Your task to perform on an android device: turn off improve location accuracy Image 0: 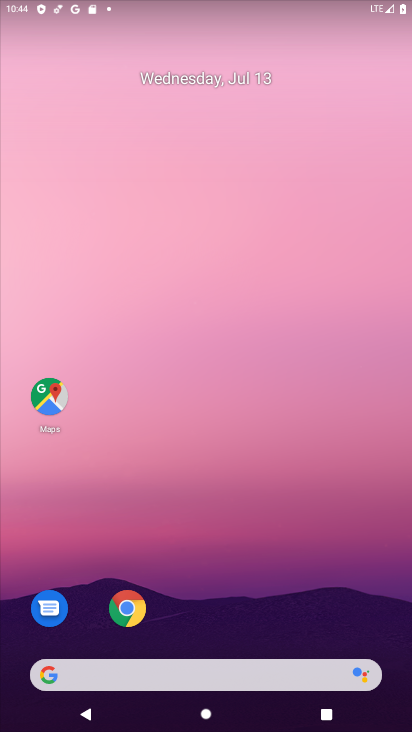
Step 0: drag from (223, 598) to (249, 9)
Your task to perform on an android device: turn off improve location accuracy Image 1: 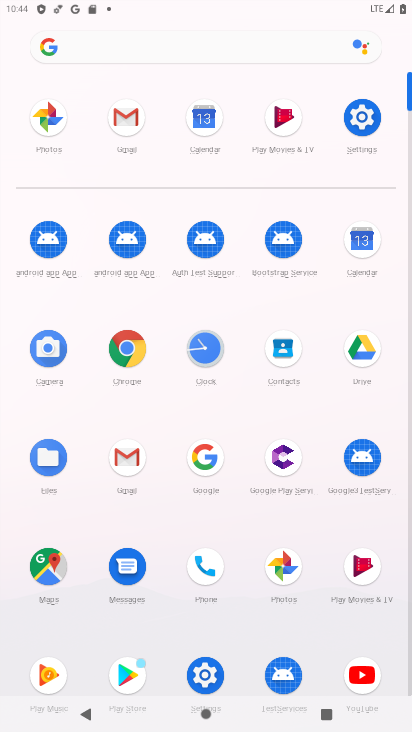
Step 1: click (354, 126)
Your task to perform on an android device: turn off improve location accuracy Image 2: 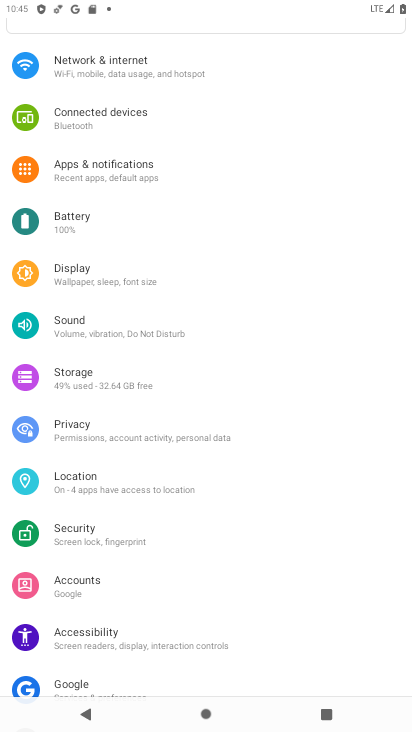
Step 2: click (139, 485)
Your task to perform on an android device: turn off improve location accuracy Image 3: 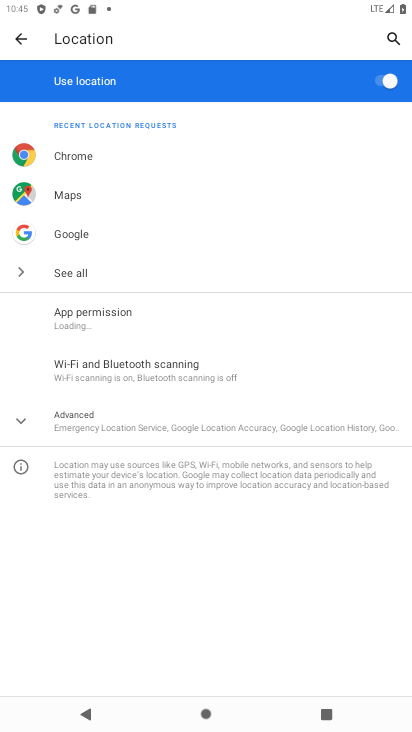
Step 3: click (119, 415)
Your task to perform on an android device: turn off improve location accuracy Image 4: 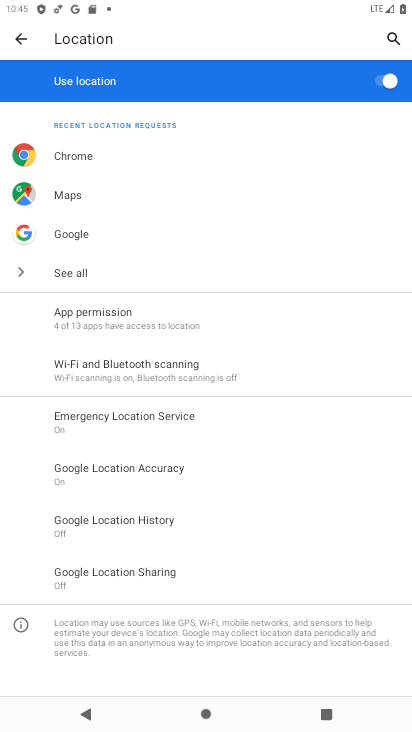
Step 4: click (128, 479)
Your task to perform on an android device: turn off improve location accuracy Image 5: 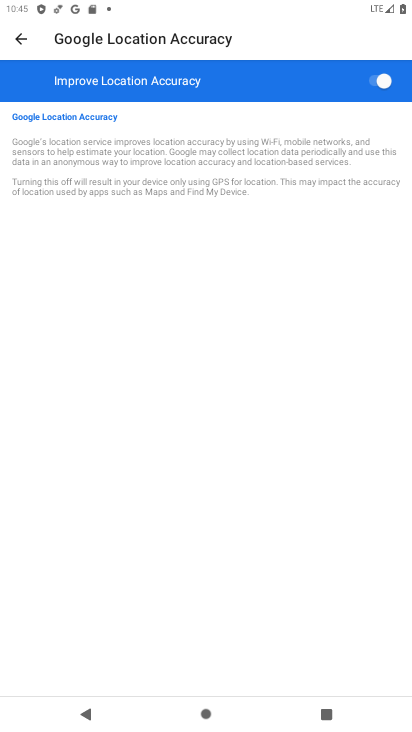
Step 5: click (387, 90)
Your task to perform on an android device: turn off improve location accuracy Image 6: 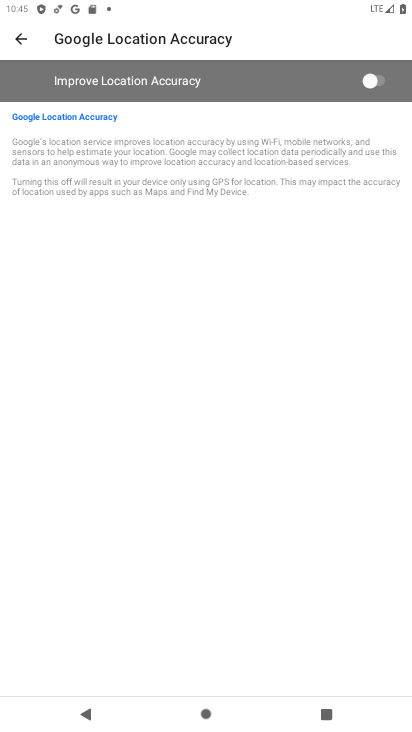
Step 6: task complete